Your task to perform on an android device: Show the shopping cart on costco.com. Search for razer deathadder on costco.com, select the first entry, and add it to the cart. Image 0: 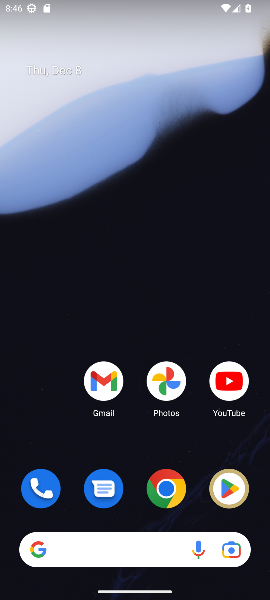
Step 0: drag from (127, 522) to (125, 196)
Your task to perform on an android device: Show the shopping cart on costco.com. Search for razer deathadder on costco.com, select the first entry, and add it to the cart. Image 1: 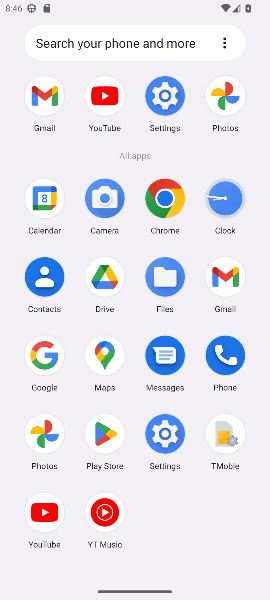
Step 1: click (51, 352)
Your task to perform on an android device: Show the shopping cart on costco.com. Search for razer deathadder on costco.com, select the first entry, and add it to the cart. Image 2: 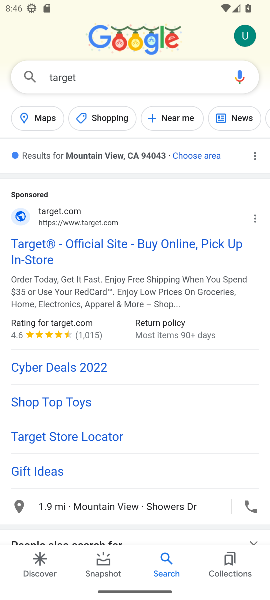
Step 2: click (76, 75)
Your task to perform on an android device: Show the shopping cart on costco.com. Search for razer deathadder on costco.com, select the first entry, and add it to the cart. Image 3: 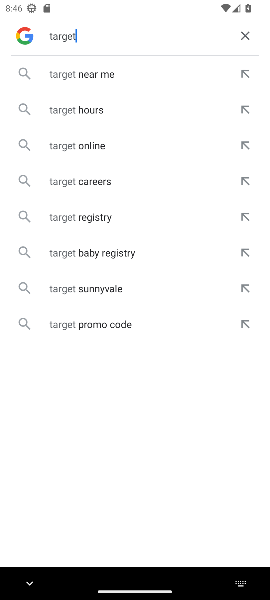
Step 3: click (248, 35)
Your task to perform on an android device: Show the shopping cart on costco.com. Search for razer deathadder on costco.com, select the first entry, and add it to the cart. Image 4: 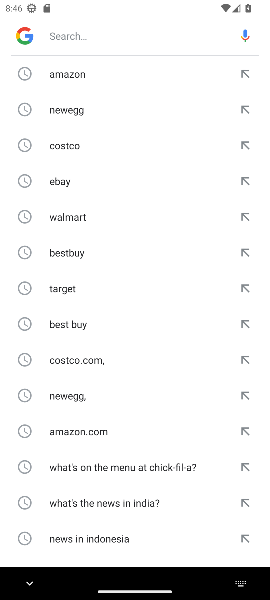
Step 4: click (72, 144)
Your task to perform on an android device: Show the shopping cart on costco.com. Search for razer deathadder on costco.com, select the first entry, and add it to the cart. Image 5: 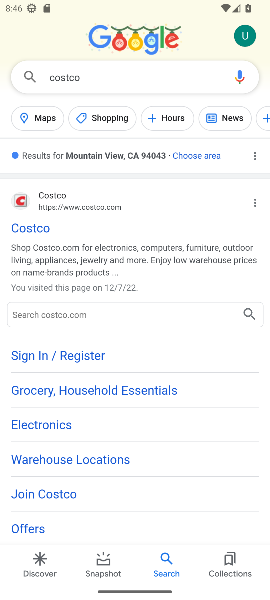
Step 5: click (35, 225)
Your task to perform on an android device: Show the shopping cart on costco.com. Search for razer deathadder on costco.com, select the first entry, and add it to the cart. Image 6: 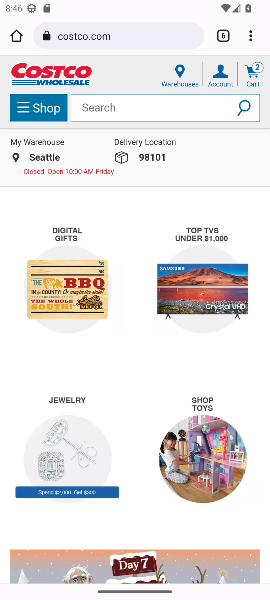
Step 6: click (257, 66)
Your task to perform on an android device: Show the shopping cart on costco.com. Search for razer deathadder on costco.com, select the first entry, and add it to the cart. Image 7: 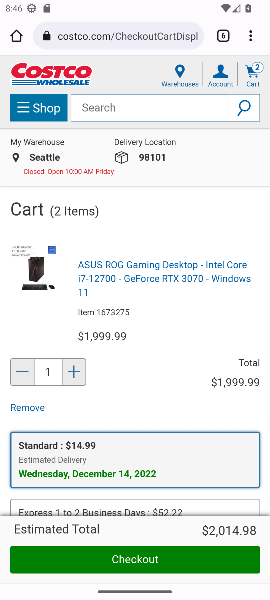
Step 7: drag from (165, 408) to (167, 202)
Your task to perform on an android device: Show the shopping cart on costco.com. Search for razer deathadder on costco.com, select the first entry, and add it to the cart. Image 8: 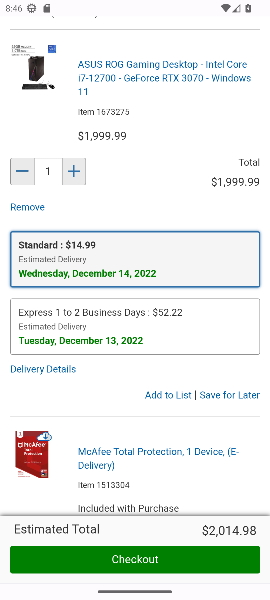
Step 8: drag from (164, 106) to (166, 437)
Your task to perform on an android device: Show the shopping cart on costco.com. Search for razer deathadder on costco.com, select the first entry, and add it to the cart. Image 9: 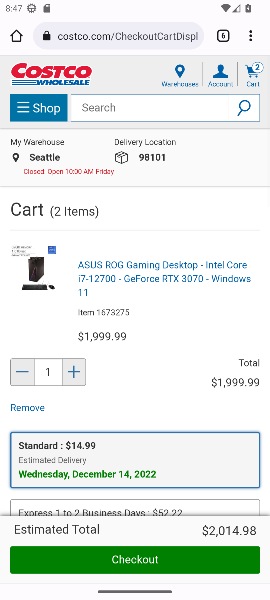
Step 9: click (115, 105)
Your task to perform on an android device: Show the shopping cart on costco.com. Search for razer deathadder on costco.com, select the first entry, and add it to the cart. Image 10: 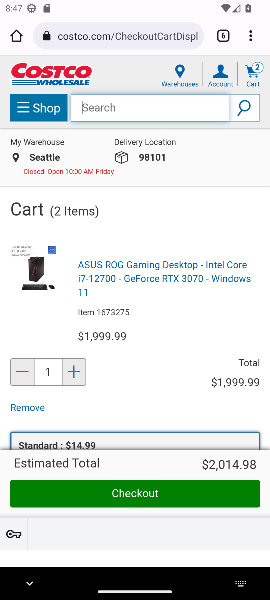
Step 10: click (247, 109)
Your task to perform on an android device: Show the shopping cart on costco.com. Search for razer deathadder on costco.com, select the first entry, and add it to the cart. Image 11: 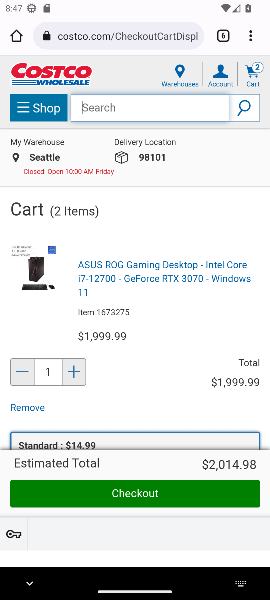
Step 11: type "razer deathadder"
Your task to perform on an android device: Show the shopping cart on costco.com. Search for razer deathadder on costco.com, select the first entry, and add it to the cart. Image 12: 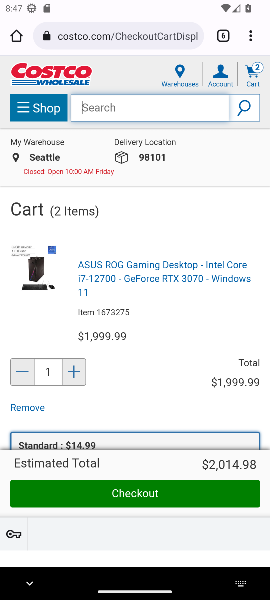
Step 12: click (247, 109)
Your task to perform on an android device: Show the shopping cart on costco.com. Search for razer deathadder on costco.com, select the first entry, and add it to the cart. Image 13: 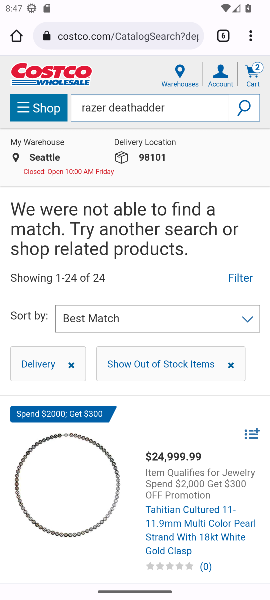
Step 13: drag from (119, 567) to (119, 333)
Your task to perform on an android device: Show the shopping cart on costco.com. Search for razer deathadder on costco.com, select the first entry, and add it to the cart. Image 14: 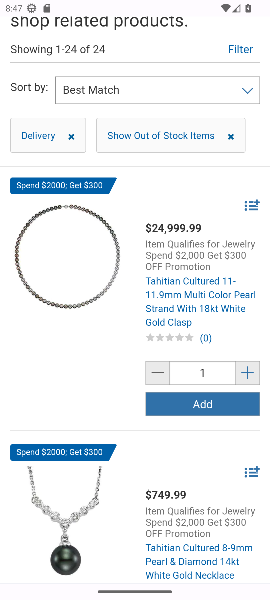
Step 14: drag from (140, 150) to (142, 468)
Your task to perform on an android device: Show the shopping cart on costco.com. Search for razer deathadder on costco.com, select the first entry, and add it to the cart. Image 15: 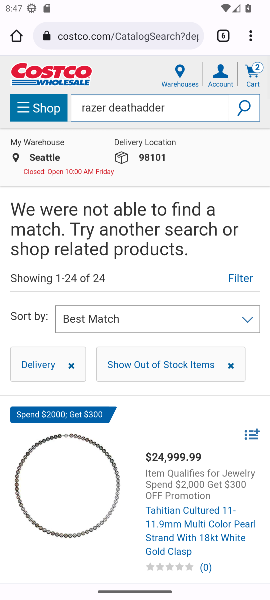
Step 15: drag from (123, 540) to (130, 284)
Your task to perform on an android device: Show the shopping cart on costco.com. Search for razer deathadder on costco.com, select the first entry, and add it to the cart. Image 16: 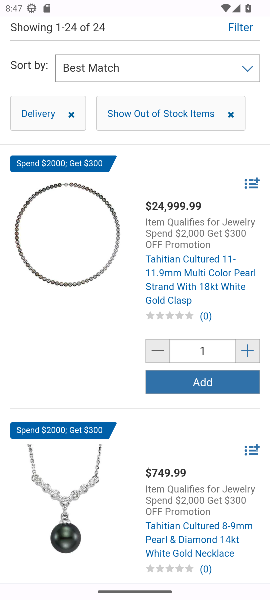
Step 16: click (199, 382)
Your task to perform on an android device: Show the shopping cart on costco.com. Search for razer deathadder on costco.com, select the first entry, and add it to the cart. Image 17: 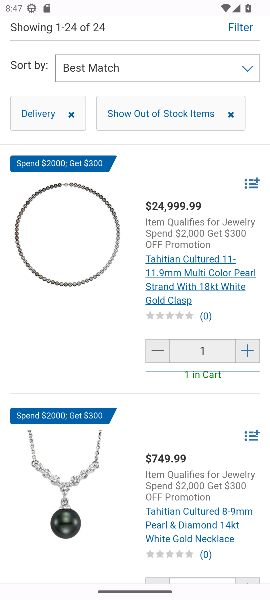
Step 17: drag from (127, 142) to (127, 417)
Your task to perform on an android device: Show the shopping cart on costco.com. Search for razer deathadder on costco.com, select the first entry, and add it to the cart. Image 18: 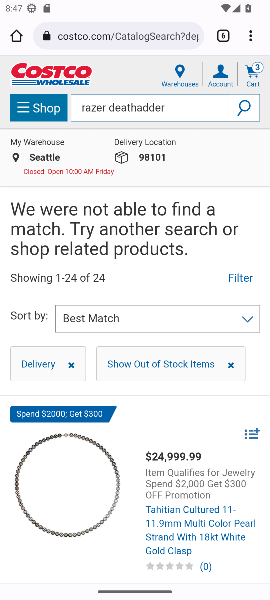
Step 18: click (247, 73)
Your task to perform on an android device: Show the shopping cart on costco.com. Search for razer deathadder on costco.com, select the first entry, and add it to the cart. Image 19: 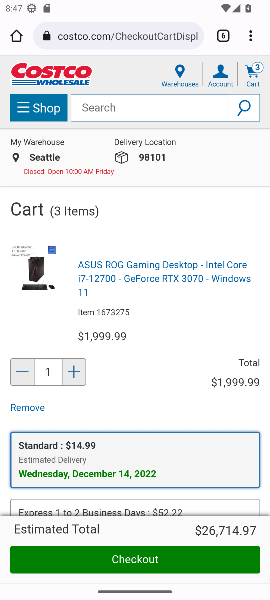
Step 19: click (141, 560)
Your task to perform on an android device: Show the shopping cart on costco.com. Search for razer deathadder on costco.com, select the first entry, and add it to the cart. Image 20: 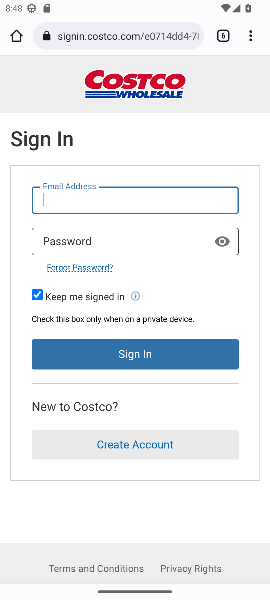
Step 20: task complete